Your task to perform on an android device: Go to accessibility settings Image 0: 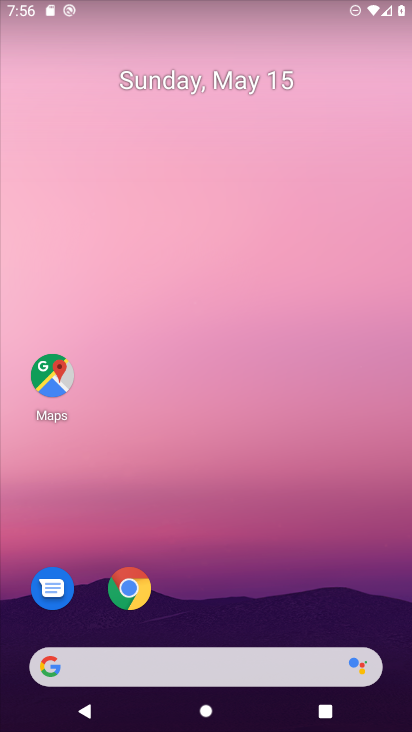
Step 0: drag from (217, 623) to (259, 35)
Your task to perform on an android device: Go to accessibility settings Image 1: 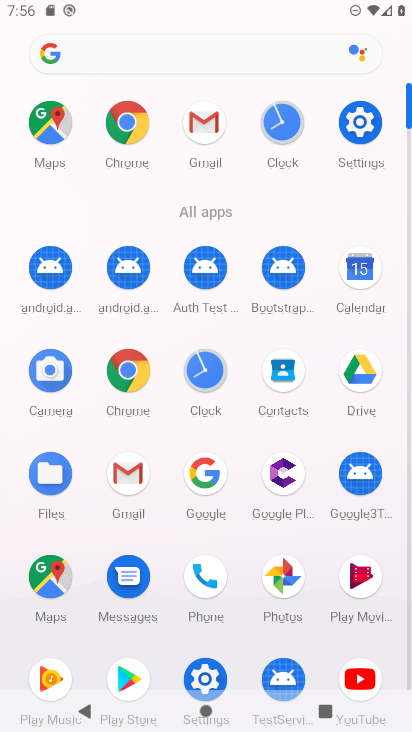
Step 1: click (358, 118)
Your task to perform on an android device: Go to accessibility settings Image 2: 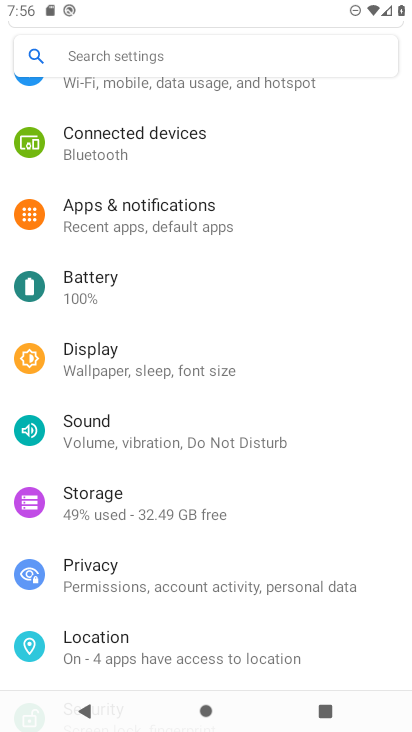
Step 2: drag from (165, 628) to (206, 179)
Your task to perform on an android device: Go to accessibility settings Image 3: 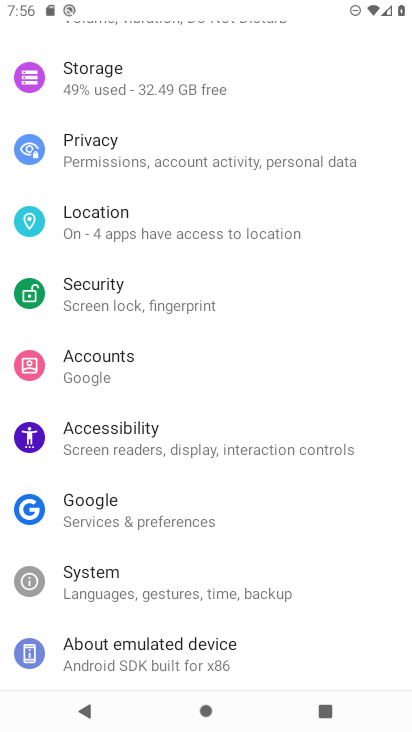
Step 3: click (173, 420)
Your task to perform on an android device: Go to accessibility settings Image 4: 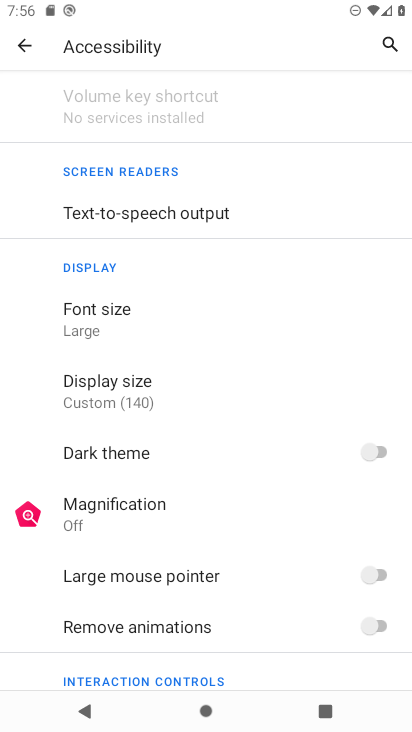
Step 4: task complete